Your task to perform on an android device: What's on my calendar today? Image 0: 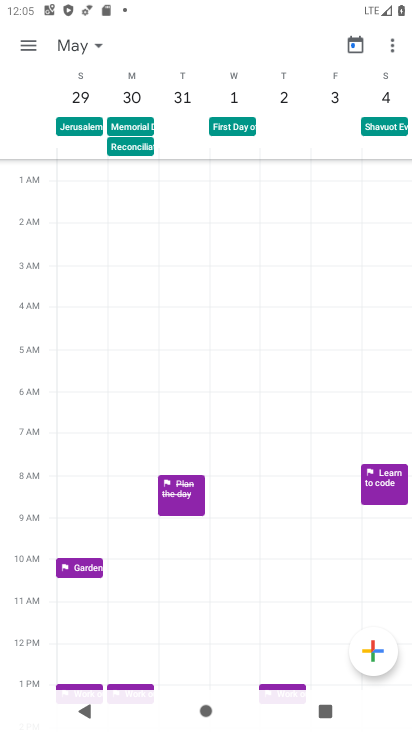
Step 0: press home button
Your task to perform on an android device: What's on my calendar today? Image 1: 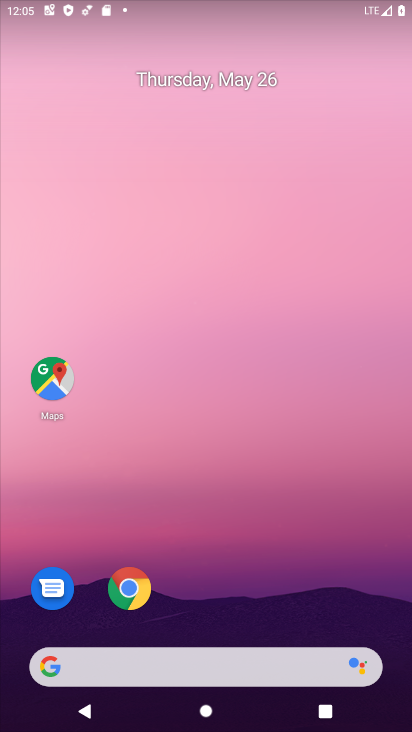
Step 1: drag from (255, 469) to (255, 7)
Your task to perform on an android device: What's on my calendar today? Image 2: 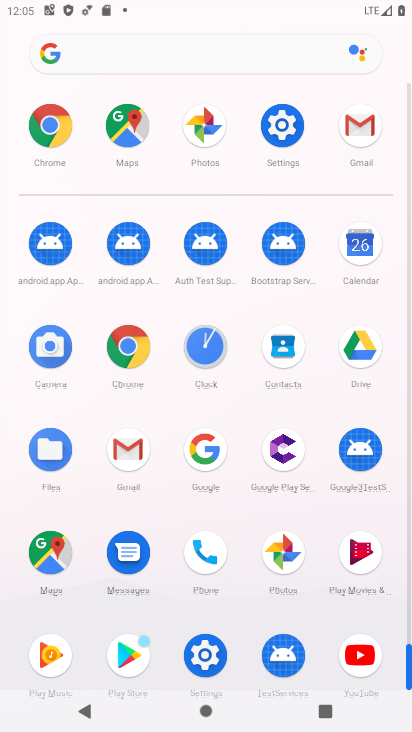
Step 2: drag from (12, 583) to (36, 219)
Your task to perform on an android device: What's on my calendar today? Image 3: 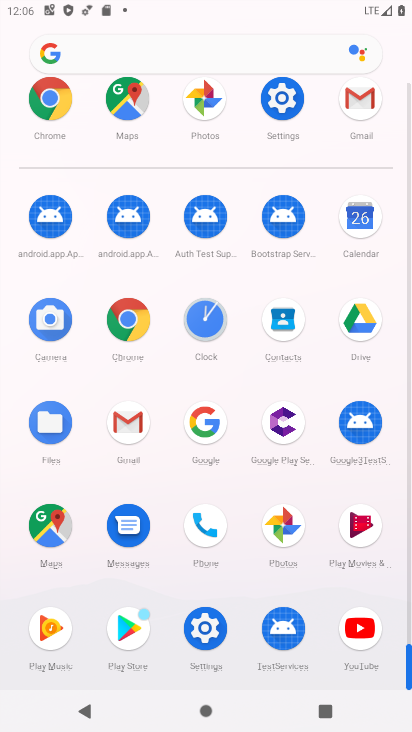
Step 3: click (358, 210)
Your task to perform on an android device: What's on my calendar today? Image 4: 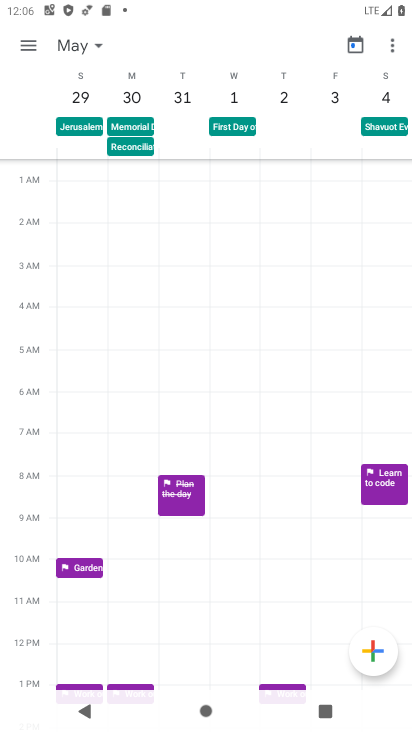
Step 4: click (347, 41)
Your task to perform on an android device: What's on my calendar today? Image 5: 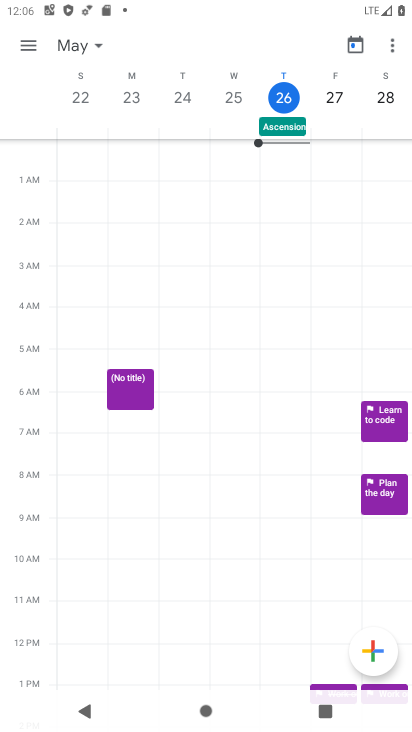
Step 5: drag from (206, 573) to (201, 267)
Your task to perform on an android device: What's on my calendar today? Image 6: 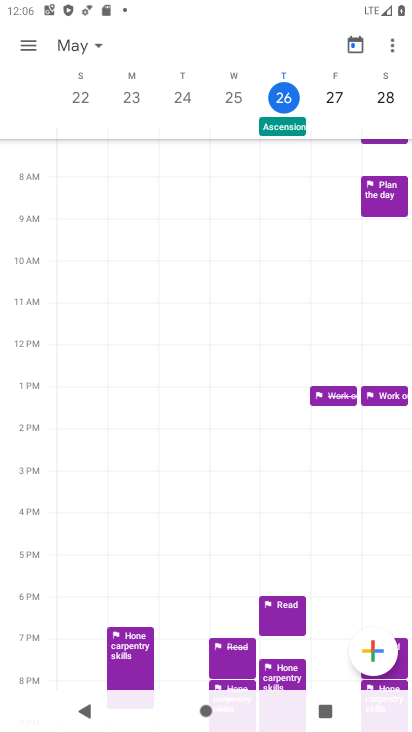
Step 6: click (284, 86)
Your task to perform on an android device: What's on my calendar today? Image 7: 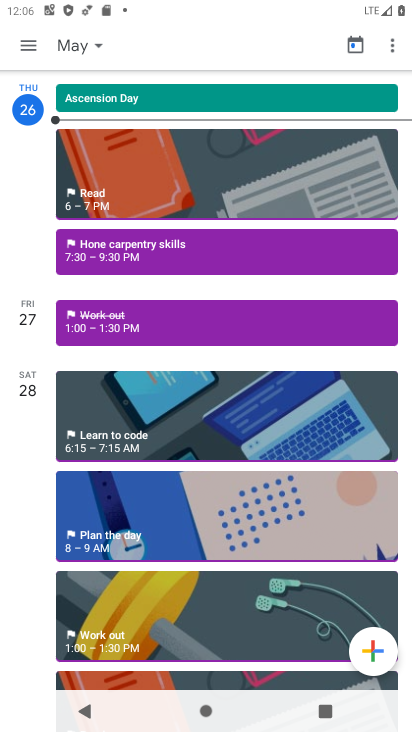
Step 7: task complete